Your task to perform on an android device: turn off picture-in-picture Image 0: 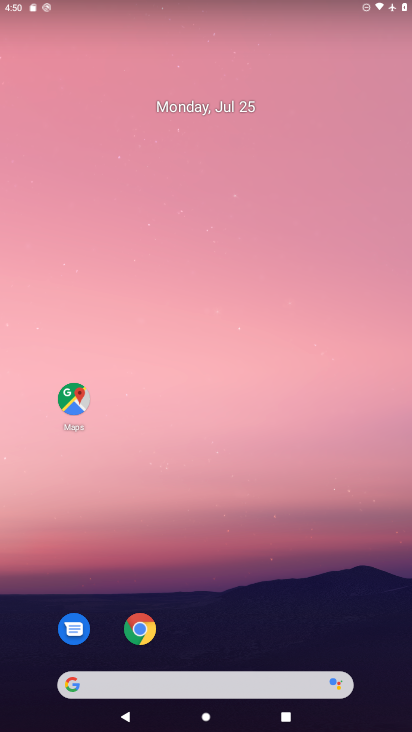
Step 0: drag from (257, 695) to (341, 47)
Your task to perform on an android device: turn off picture-in-picture Image 1: 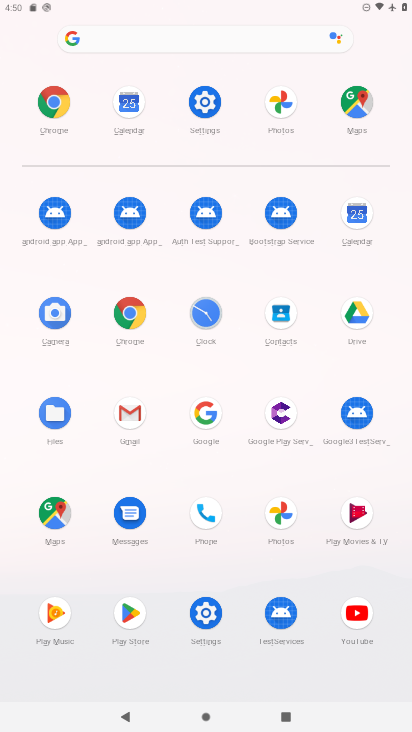
Step 1: click (212, 112)
Your task to perform on an android device: turn off picture-in-picture Image 2: 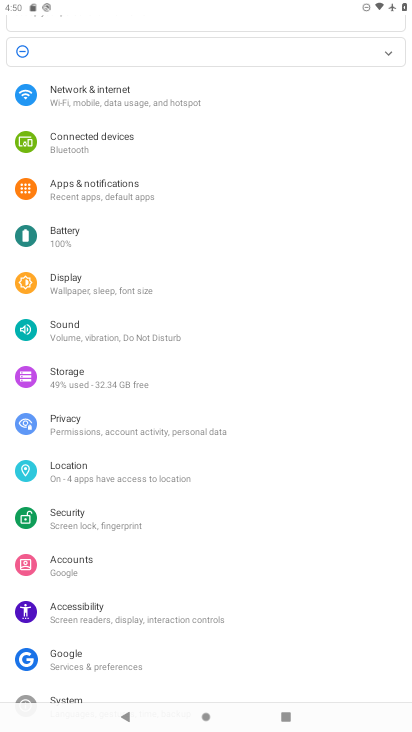
Step 2: click (128, 196)
Your task to perform on an android device: turn off picture-in-picture Image 3: 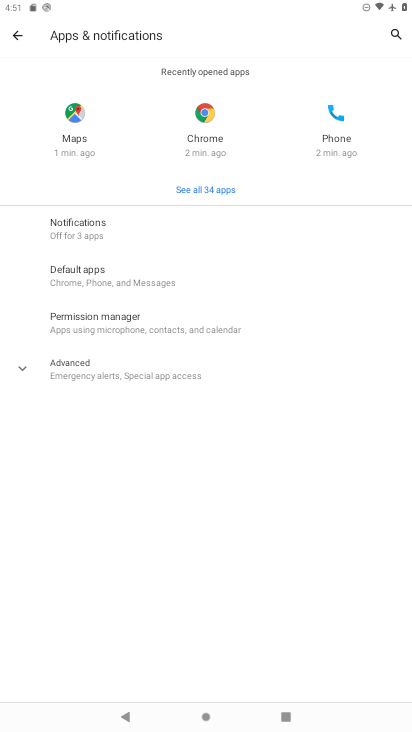
Step 3: click (109, 376)
Your task to perform on an android device: turn off picture-in-picture Image 4: 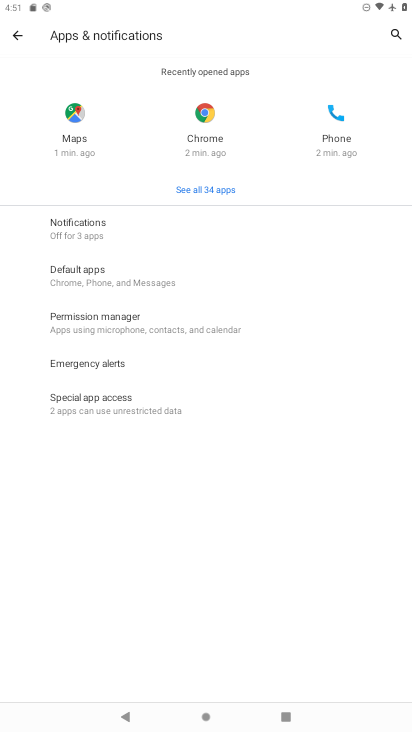
Step 4: click (100, 425)
Your task to perform on an android device: turn off picture-in-picture Image 5: 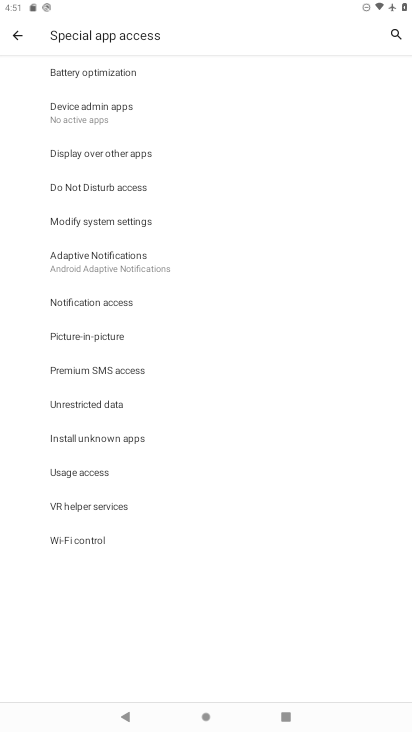
Step 5: click (115, 336)
Your task to perform on an android device: turn off picture-in-picture Image 6: 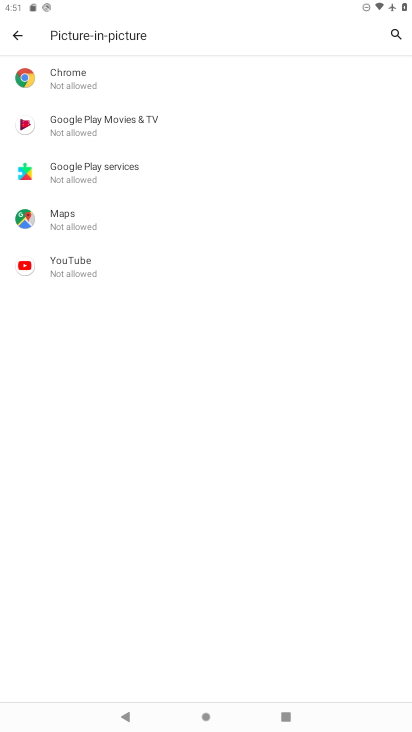
Step 6: task complete